Your task to perform on an android device: Clear all items from cart on ebay. Search for "razer blackwidow" on ebay, select the first entry, and add it to the cart. Image 0: 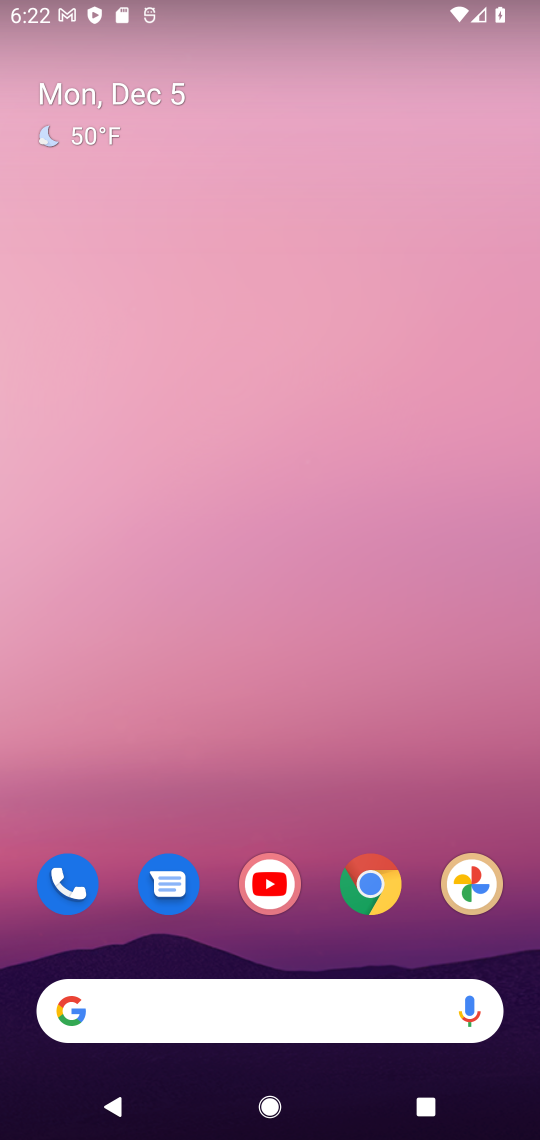
Step 0: click (366, 889)
Your task to perform on an android device: Clear all items from cart on ebay. Search for "razer blackwidow" on ebay, select the first entry, and add it to the cart. Image 1: 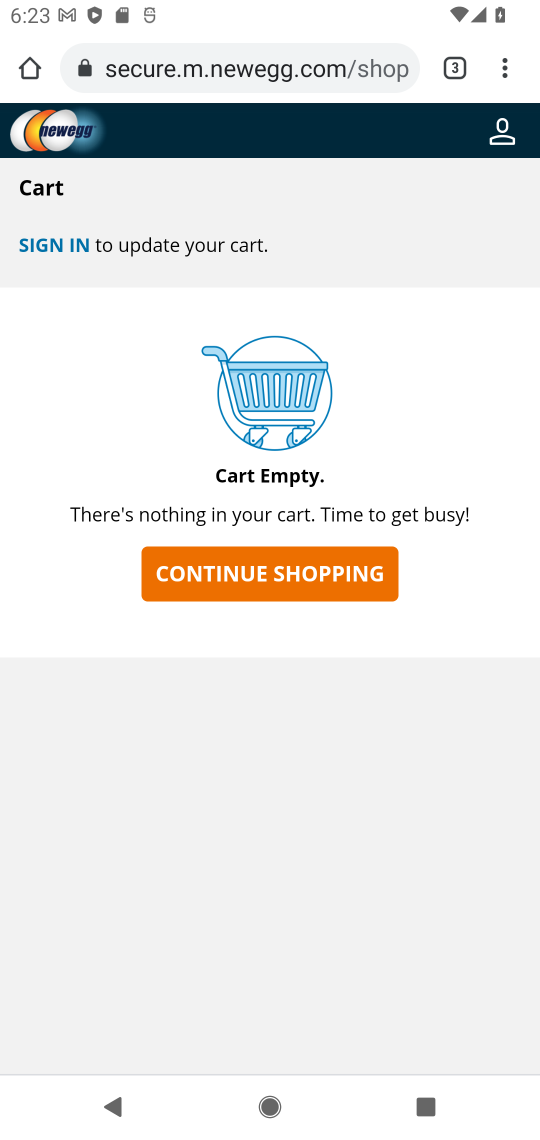
Step 1: click (461, 63)
Your task to perform on an android device: Clear all items from cart on ebay. Search for "razer blackwidow" on ebay, select the first entry, and add it to the cart. Image 2: 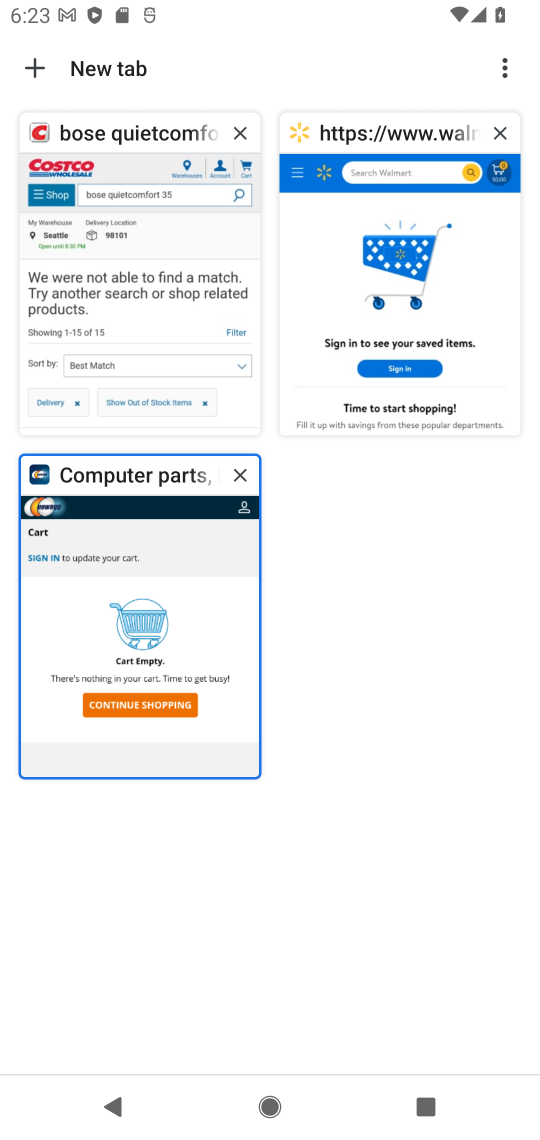
Step 2: click (33, 57)
Your task to perform on an android device: Clear all items from cart on ebay. Search for "razer blackwidow" on ebay, select the first entry, and add it to the cart. Image 3: 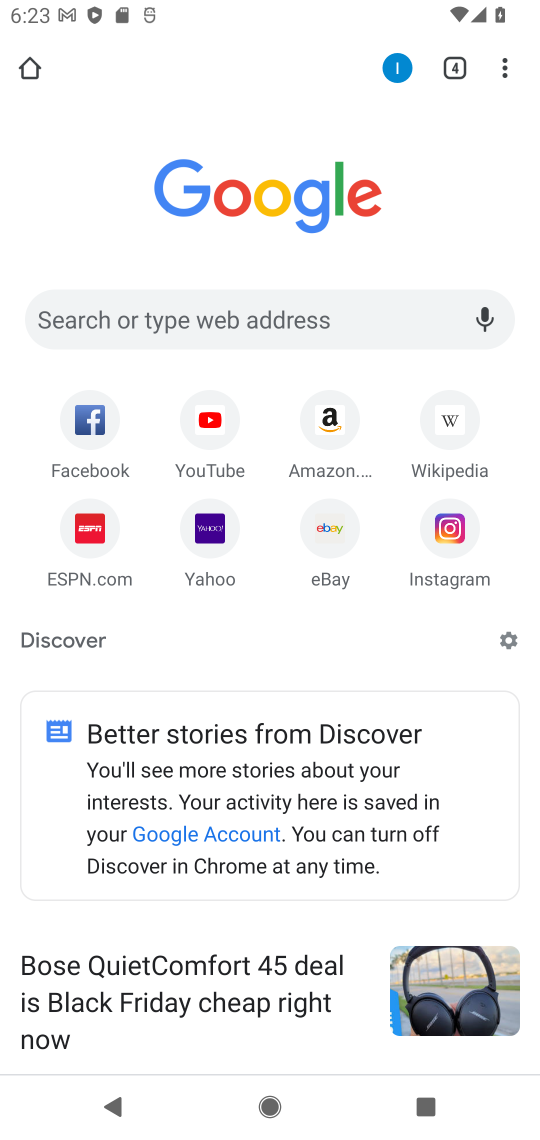
Step 3: click (314, 517)
Your task to perform on an android device: Clear all items from cart on ebay. Search for "razer blackwidow" on ebay, select the first entry, and add it to the cart. Image 4: 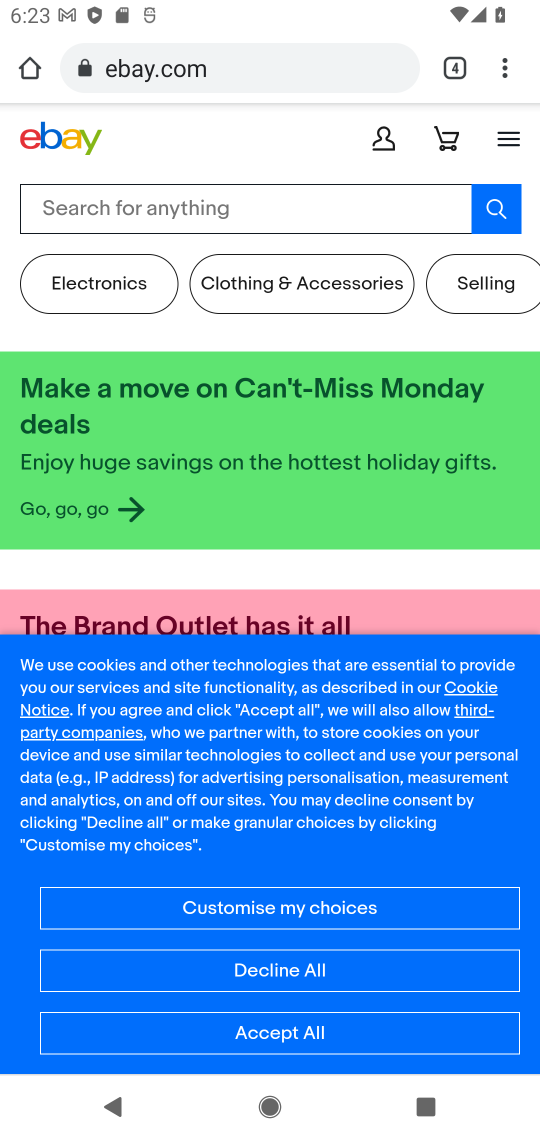
Step 4: click (99, 205)
Your task to perform on an android device: Clear all items from cart on ebay. Search for "razer blackwidow" on ebay, select the first entry, and add it to the cart. Image 5: 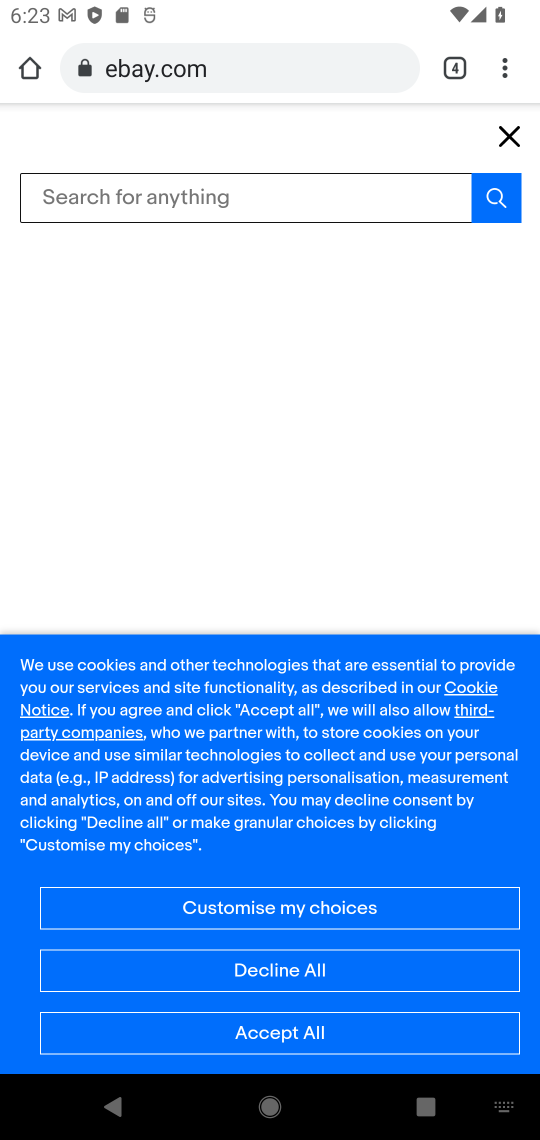
Step 5: type "razer blackwidow"
Your task to perform on an android device: Clear all items from cart on ebay. Search for "razer blackwidow" on ebay, select the first entry, and add it to the cart. Image 6: 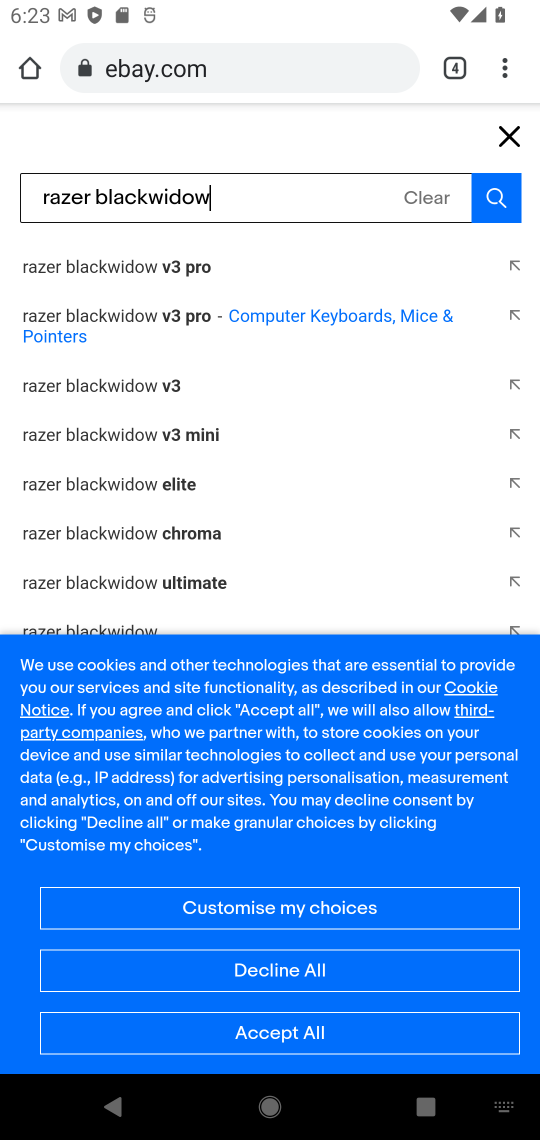
Step 6: click (163, 309)
Your task to perform on an android device: Clear all items from cart on ebay. Search for "razer blackwidow" on ebay, select the first entry, and add it to the cart. Image 7: 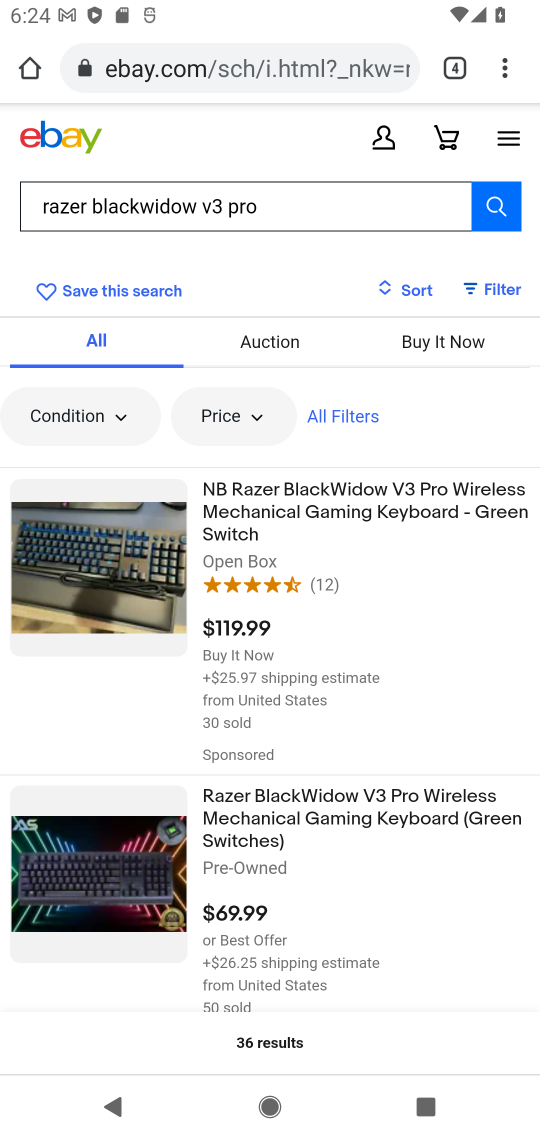
Step 7: click (296, 810)
Your task to perform on an android device: Clear all items from cart on ebay. Search for "razer blackwidow" on ebay, select the first entry, and add it to the cart. Image 8: 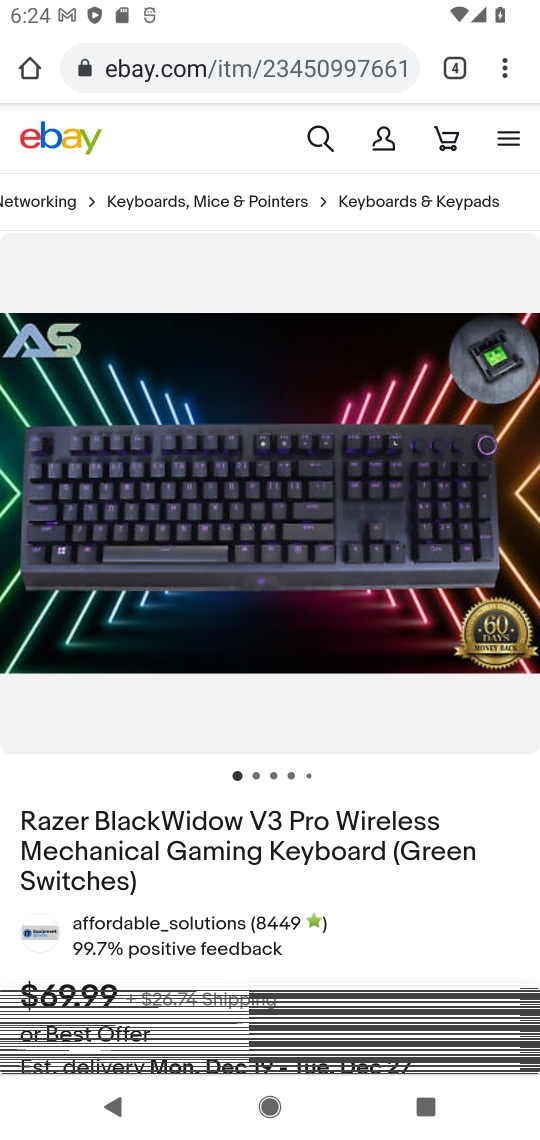
Step 8: drag from (349, 931) to (387, 630)
Your task to perform on an android device: Clear all items from cart on ebay. Search for "razer blackwidow" on ebay, select the first entry, and add it to the cart. Image 9: 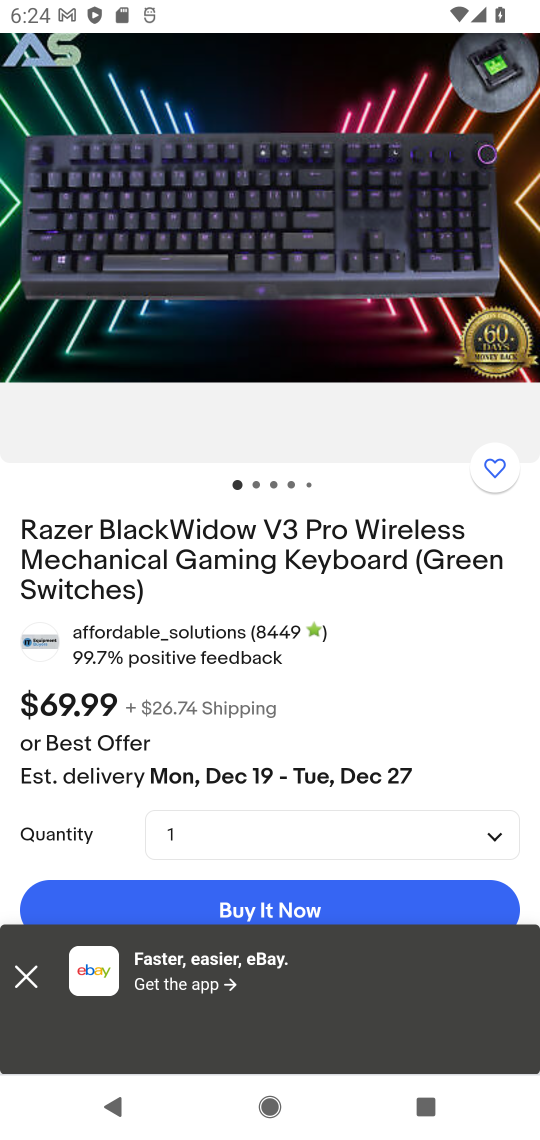
Step 9: drag from (324, 771) to (364, 461)
Your task to perform on an android device: Clear all items from cart on ebay. Search for "razer blackwidow" on ebay, select the first entry, and add it to the cart. Image 10: 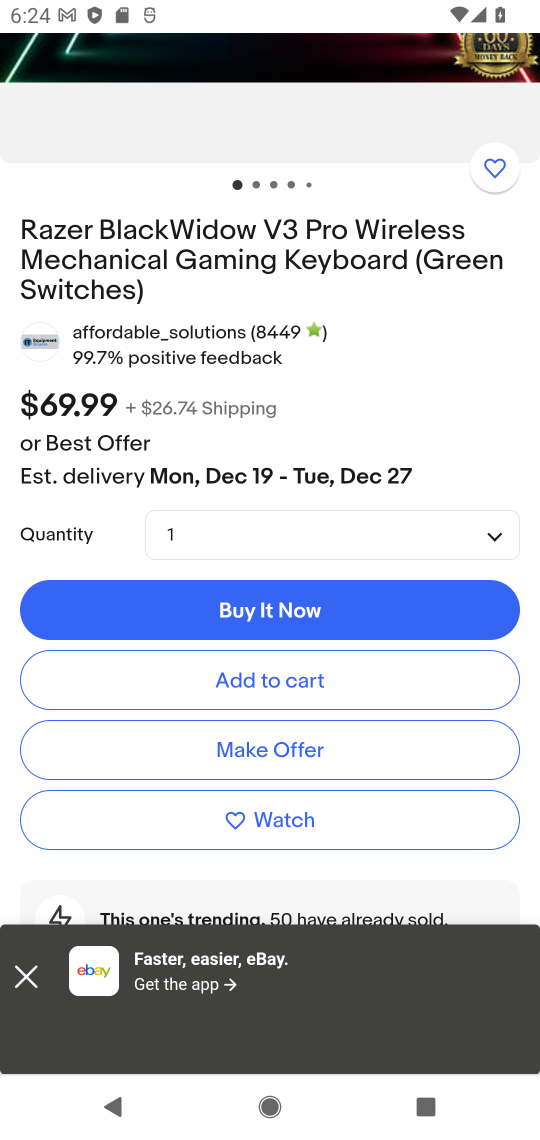
Step 10: click (296, 680)
Your task to perform on an android device: Clear all items from cart on ebay. Search for "razer blackwidow" on ebay, select the first entry, and add it to the cart. Image 11: 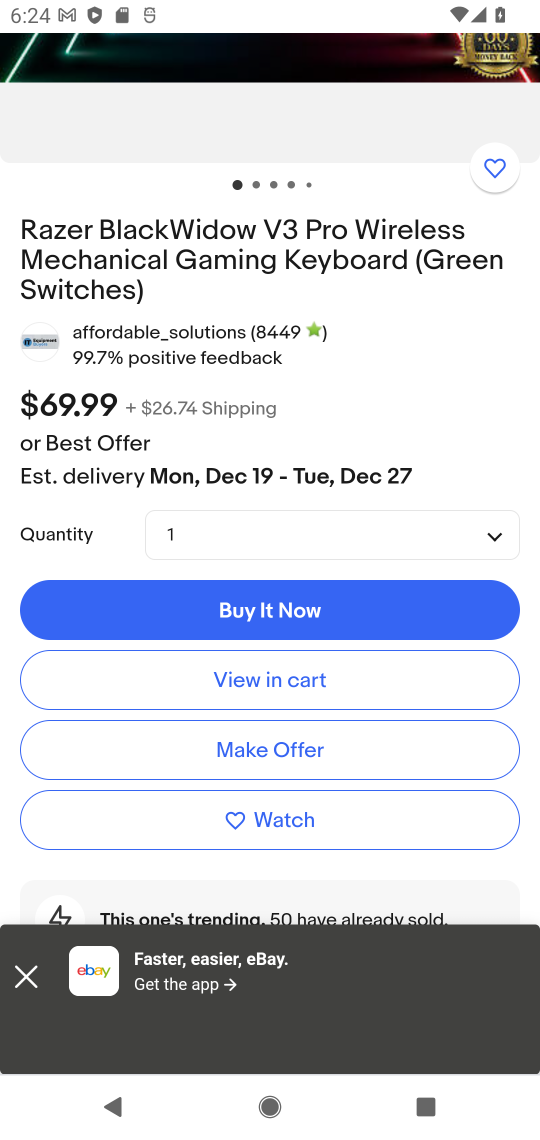
Step 11: task complete